Your task to perform on an android device: check android version Image 0: 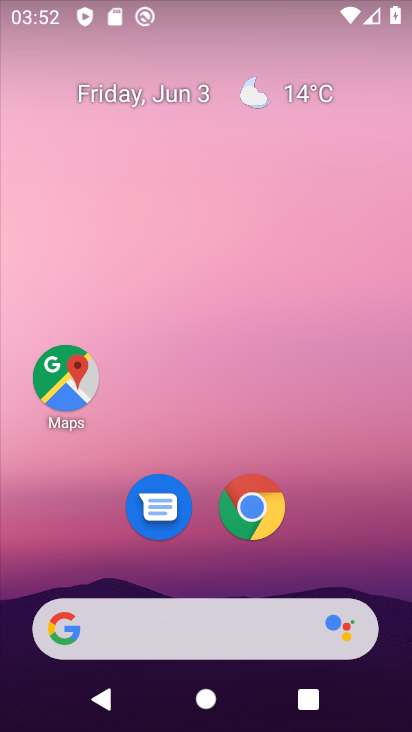
Step 0: drag from (315, 460) to (311, 2)
Your task to perform on an android device: check android version Image 1: 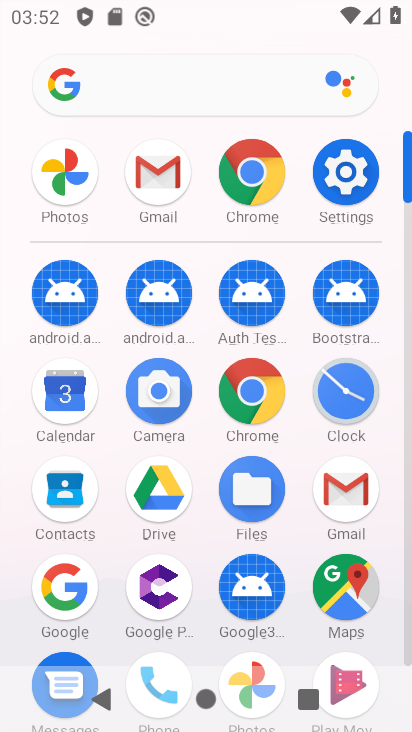
Step 1: click (335, 177)
Your task to perform on an android device: check android version Image 2: 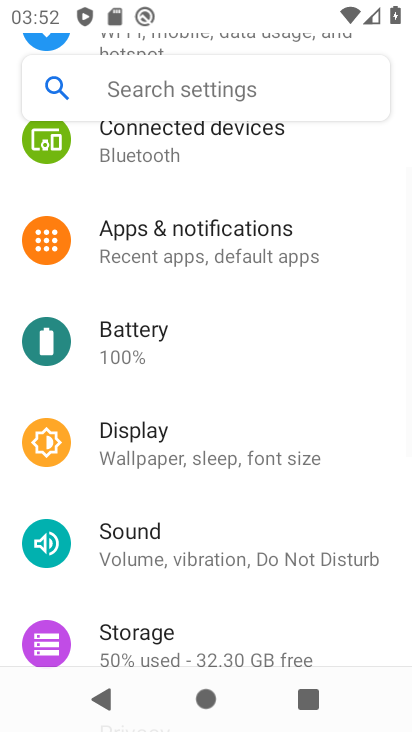
Step 2: drag from (312, 617) to (307, 3)
Your task to perform on an android device: check android version Image 3: 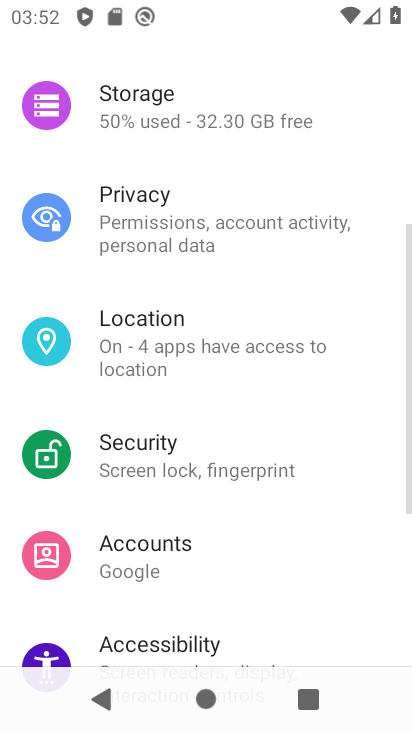
Step 3: drag from (242, 587) to (230, 126)
Your task to perform on an android device: check android version Image 4: 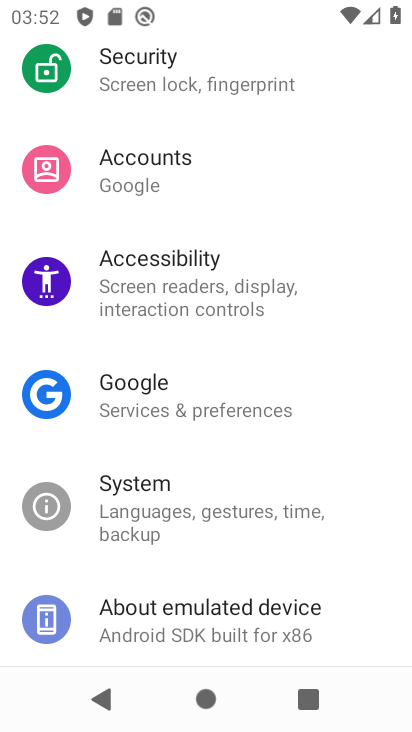
Step 4: click (208, 618)
Your task to perform on an android device: check android version Image 5: 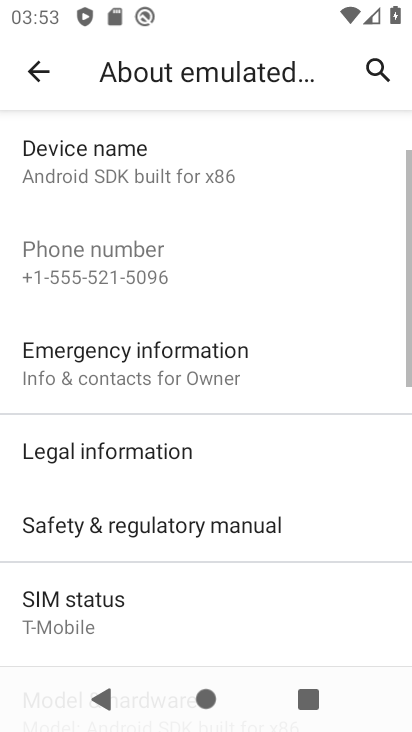
Step 5: task complete